Your task to perform on an android device: Open Google Maps Image 0: 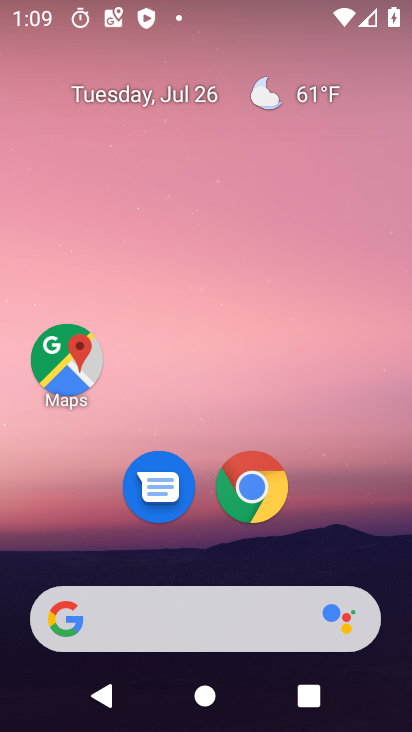
Step 0: click (55, 357)
Your task to perform on an android device: Open Google Maps Image 1: 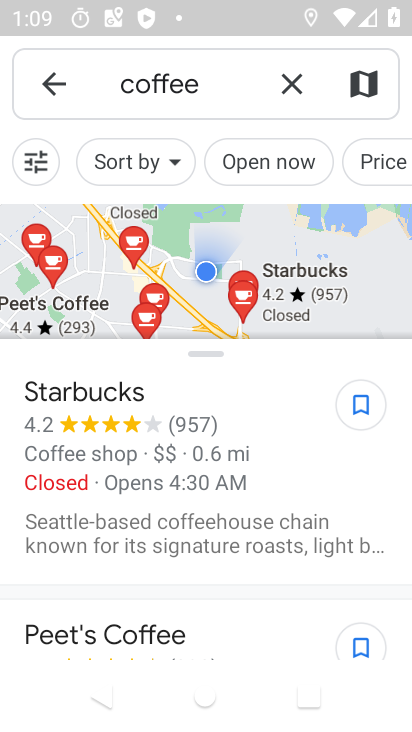
Step 1: task complete